Your task to perform on an android device: turn on translation in the chrome app Image 0: 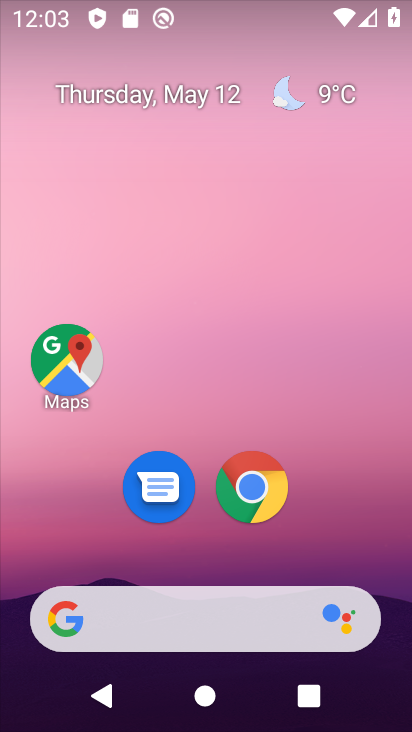
Step 0: drag from (243, 658) to (207, 1)
Your task to perform on an android device: turn on translation in the chrome app Image 1: 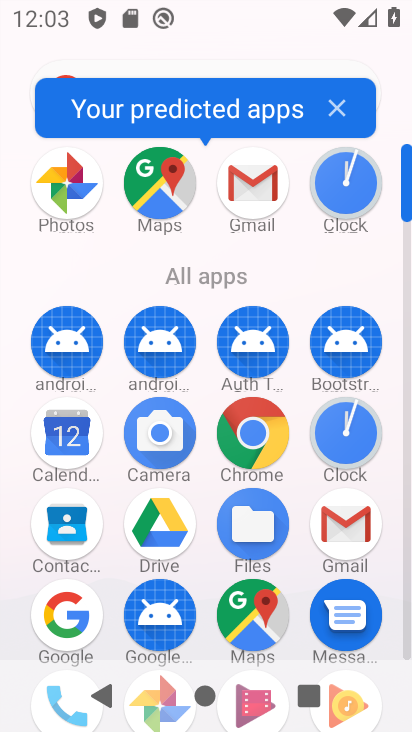
Step 1: click (239, 429)
Your task to perform on an android device: turn on translation in the chrome app Image 2: 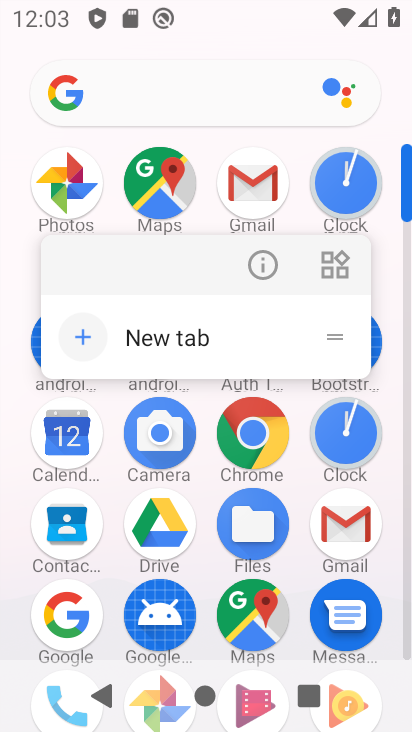
Step 2: click (260, 430)
Your task to perform on an android device: turn on translation in the chrome app Image 3: 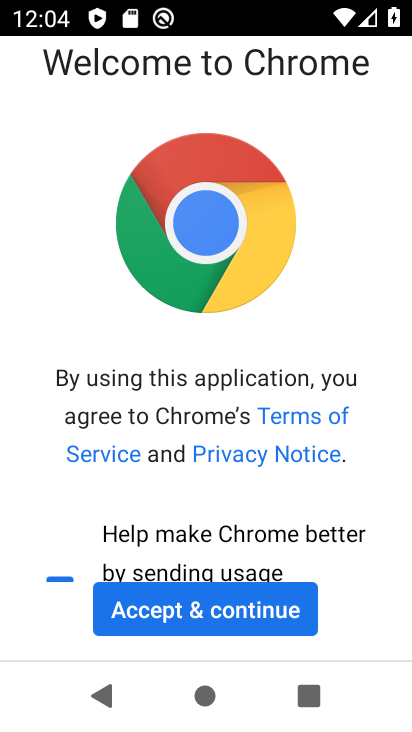
Step 3: click (178, 602)
Your task to perform on an android device: turn on translation in the chrome app Image 4: 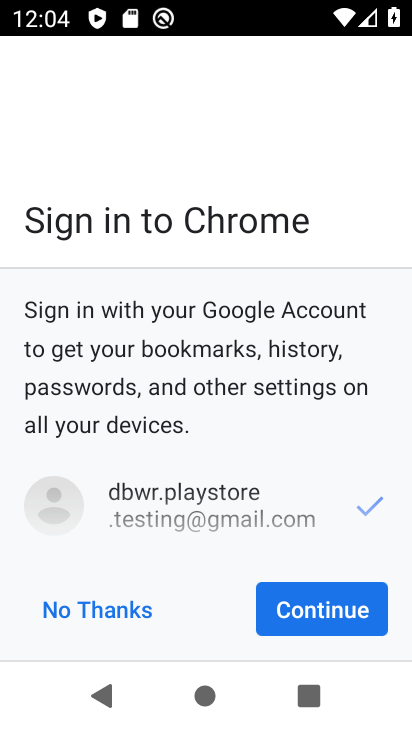
Step 4: click (326, 618)
Your task to perform on an android device: turn on translation in the chrome app Image 5: 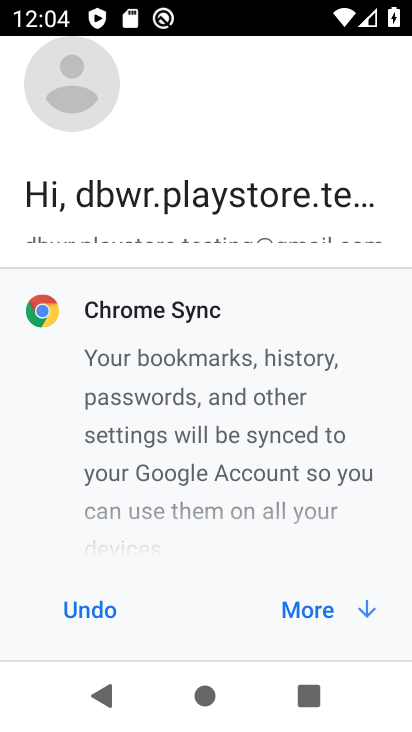
Step 5: click (361, 613)
Your task to perform on an android device: turn on translation in the chrome app Image 6: 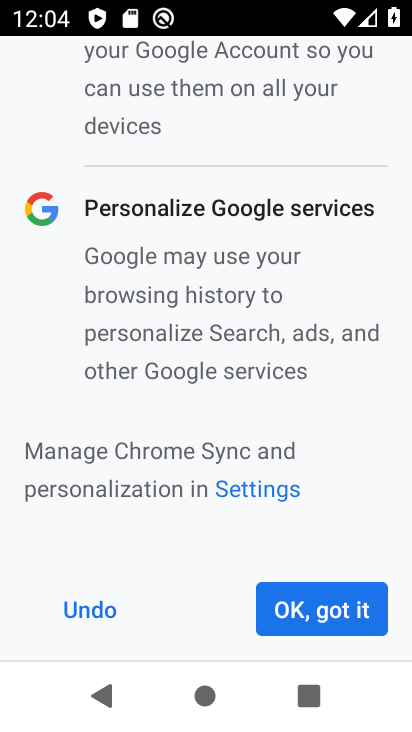
Step 6: click (330, 607)
Your task to perform on an android device: turn on translation in the chrome app Image 7: 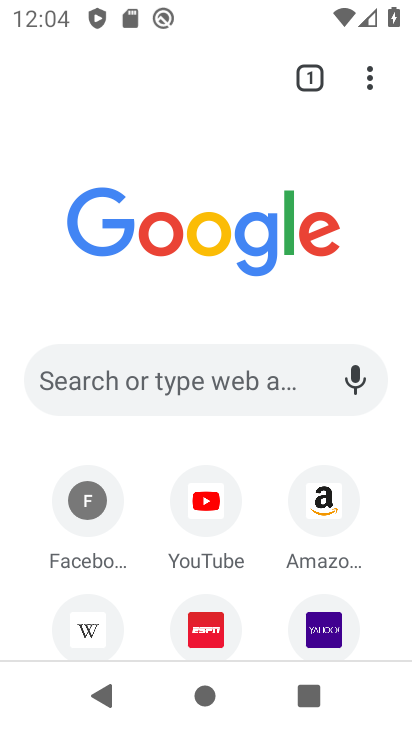
Step 7: click (363, 109)
Your task to perform on an android device: turn on translation in the chrome app Image 8: 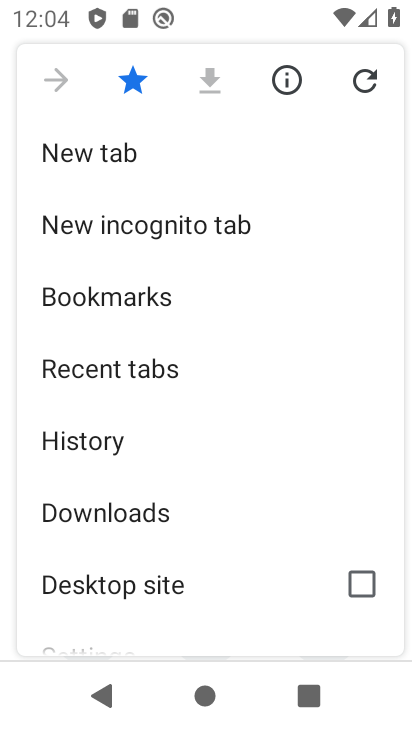
Step 8: click (70, 645)
Your task to perform on an android device: turn on translation in the chrome app Image 9: 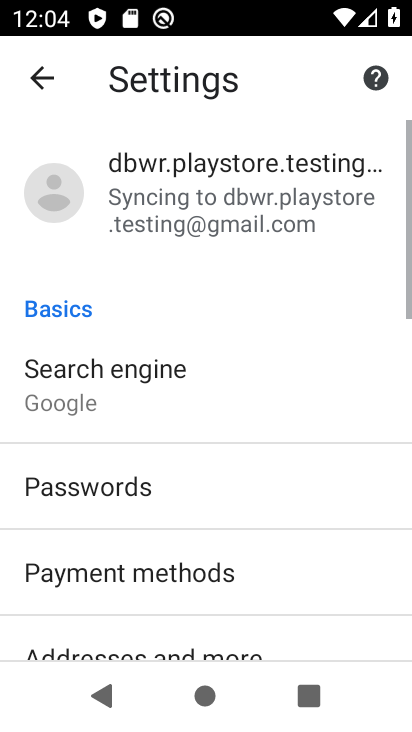
Step 9: drag from (158, 577) to (221, 300)
Your task to perform on an android device: turn on translation in the chrome app Image 10: 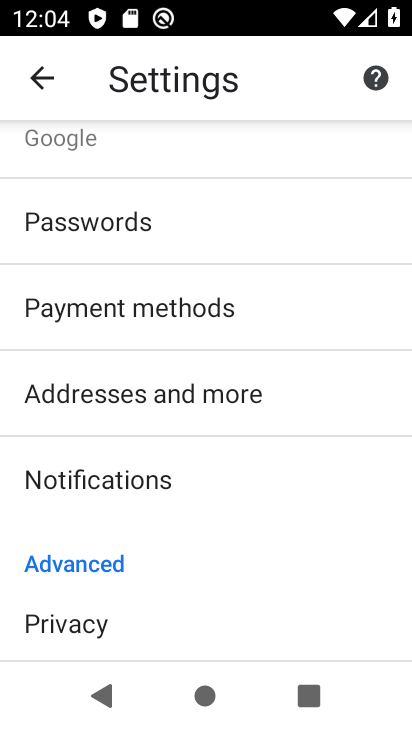
Step 10: drag from (64, 633) to (209, 331)
Your task to perform on an android device: turn on translation in the chrome app Image 11: 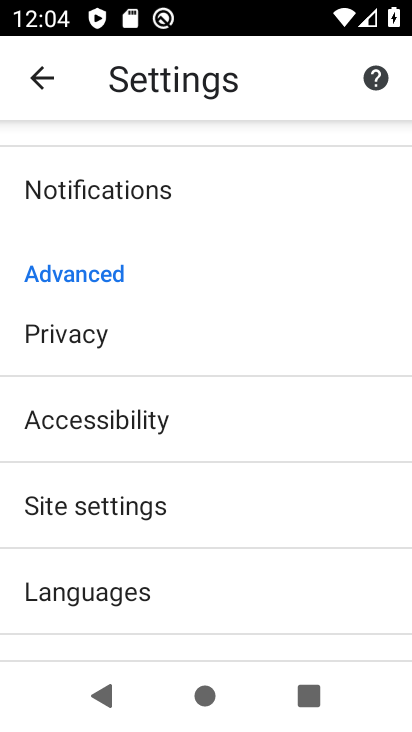
Step 11: click (106, 595)
Your task to perform on an android device: turn on translation in the chrome app Image 12: 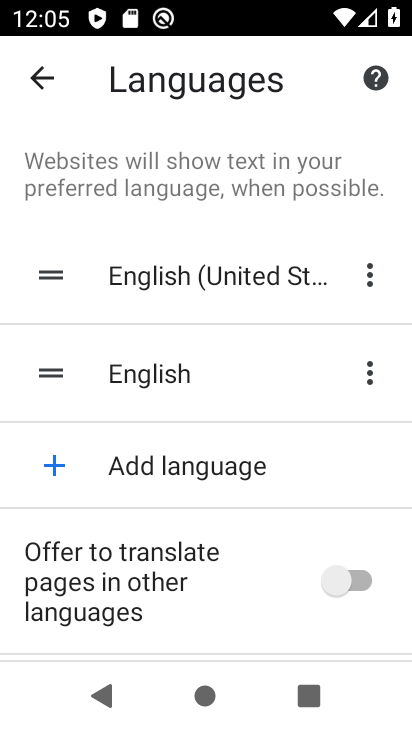
Step 12: click (357, 584)
Your task to perform on an android device: turn on translation in the chrome app Image 13: 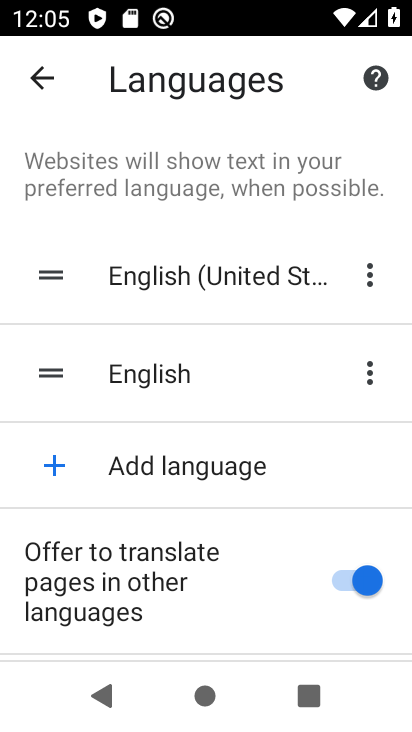
Step 13: task complete